Your task to perform on an android device: empty trash in the gmail app Image 0: 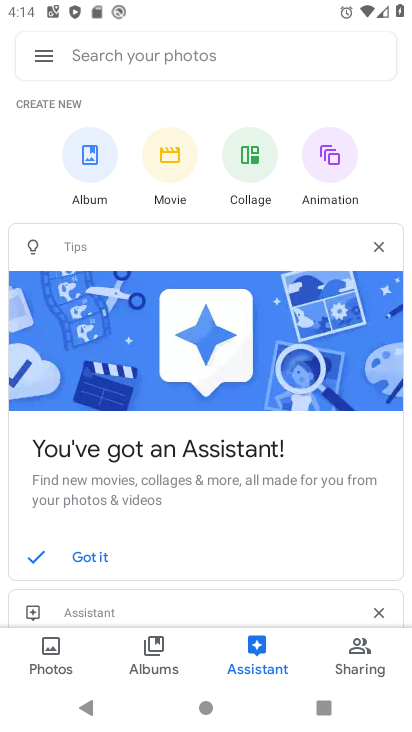
Step 0: press home button
Your task to perform on an android device: empty trash in the gmail app Image 1: 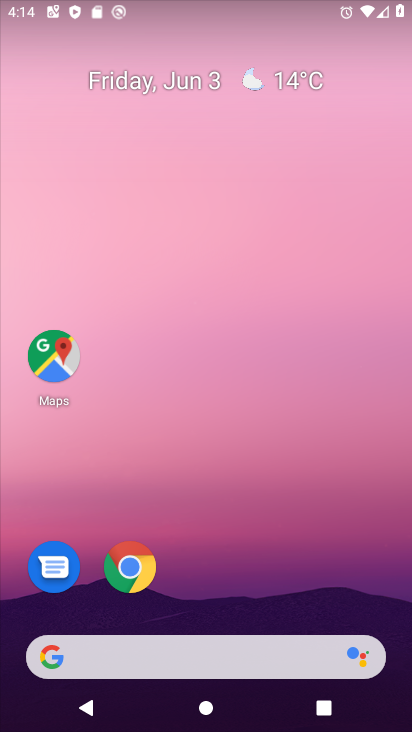
Step 1: drag from (312, 647) to (241, 96)
Your task to perform on an android device: empty trash in the gmail app Image 2: 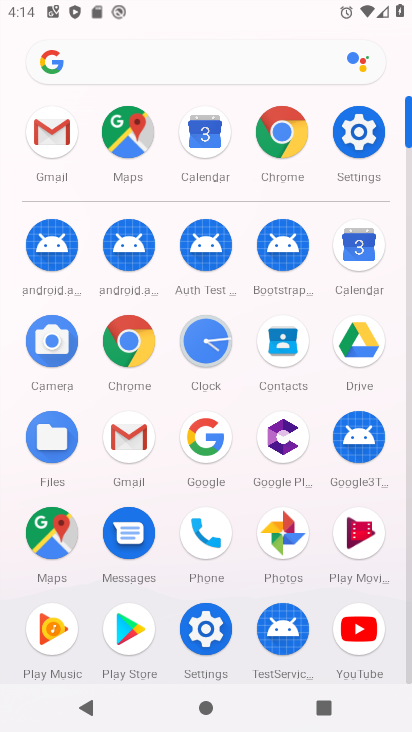
Step 2: click (134, 451)
Your task to perform on an android device: empty trash in the gmail app Image 3: 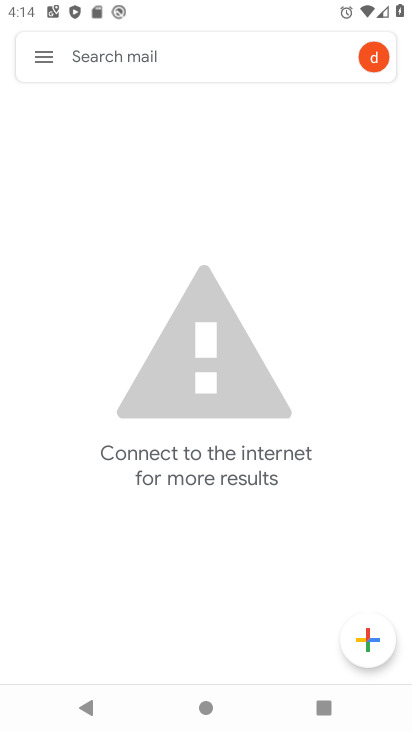
Step 3: click (47, 62)
Your task to perform on an android device: empty trash in the gmail app Image 4: 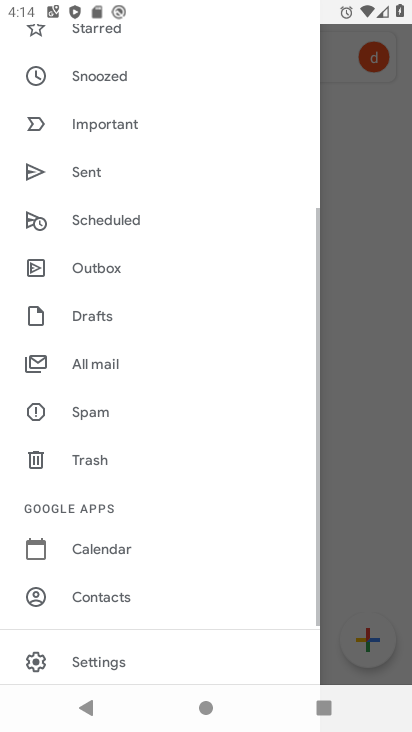
Step 4: click (83, 459)
Your task to perform on an android device: empty trash in the gmail app Image 5: 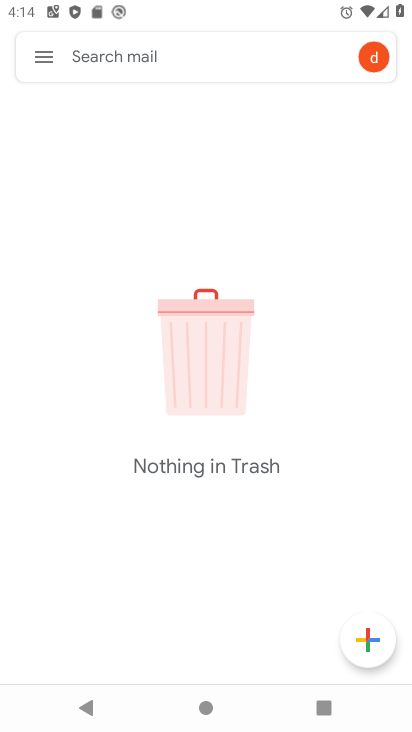
Step 5: task complete